Your task to perform on an android device: turn on translation in the chrome app Image 0: 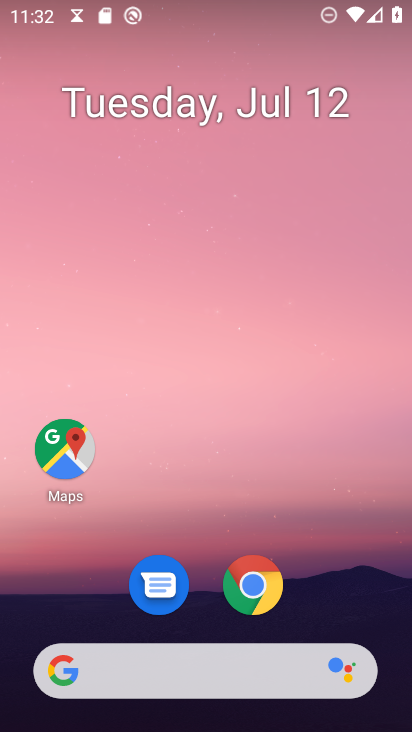
Step 0: click (256, 580)
Your task to perform on an android device: turn on translation in the chrome app Image 1: 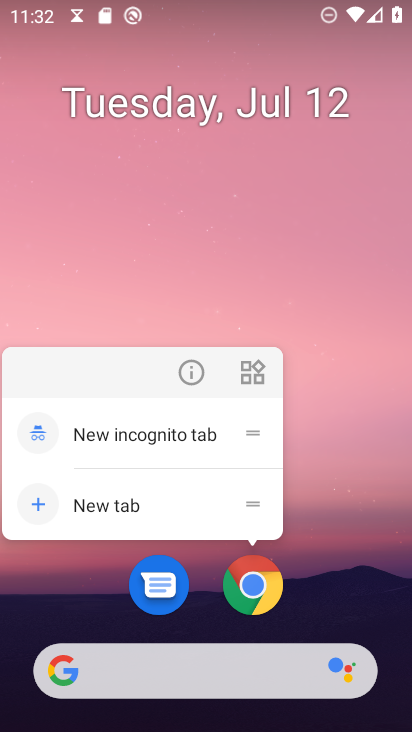
Step 1: click (256, 592)
Your task to perform on an android device: turn on translation in the chrome app Image 2: 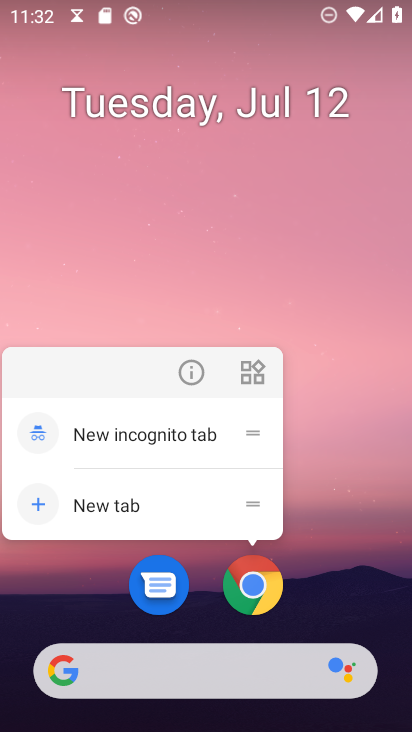
Step 2: click (256, 592)
Your task to perform on an android device: turn on translation in the chrome app Image 3: 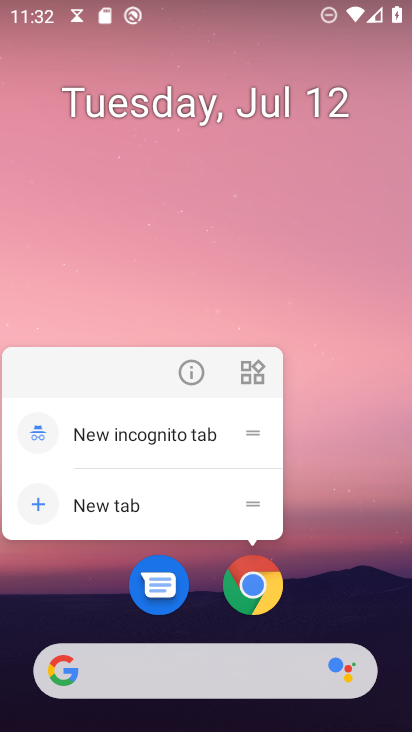
Step 3: click (259, 588)
Your task to perform on an android device: turn on translation in the chrome app Image 4: 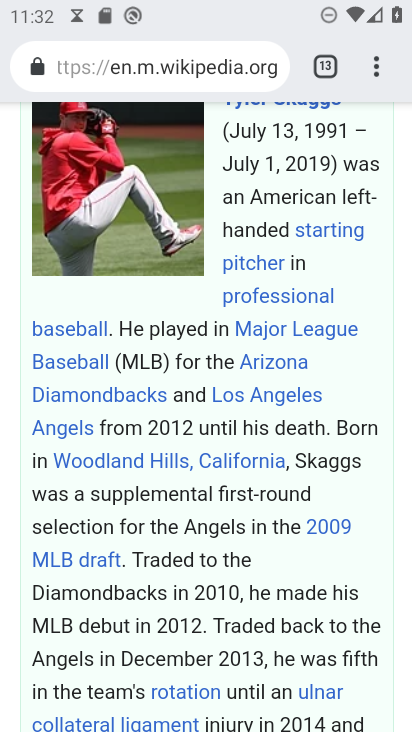
Step 4: drag from (377, 70) to (207, 588)
Your task to perform on an android device: turn on translation in the chrome app Image 5: 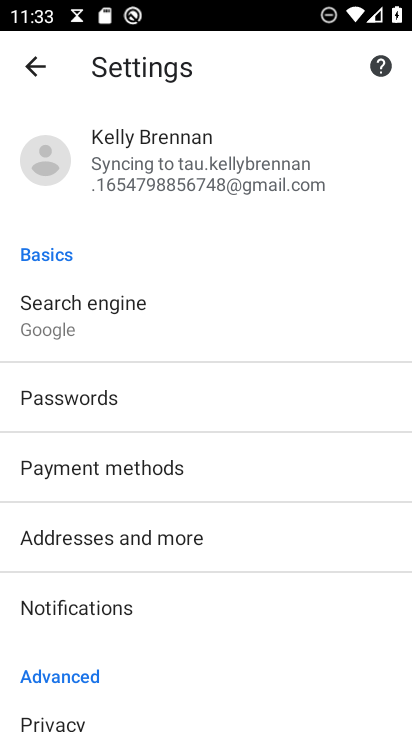
Step 5: drag from (219, 675) to (135, 254)
Your task to perform on an android device: turn on translation in the chrome app Image 6: 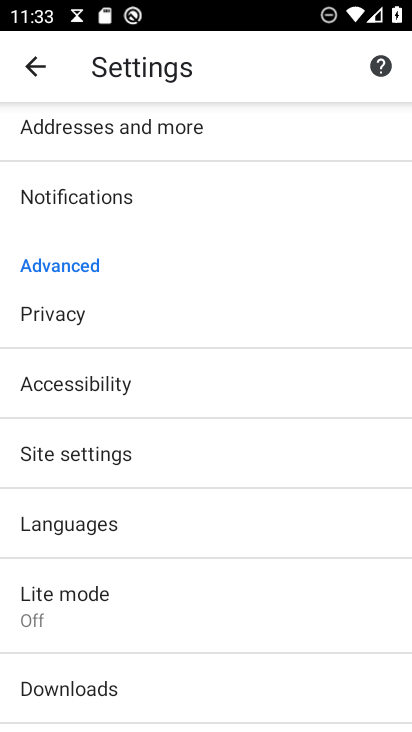
Step 6: click (97, 524)
Your task to perform on an android device: turn on translation in the chrome app Image 7: 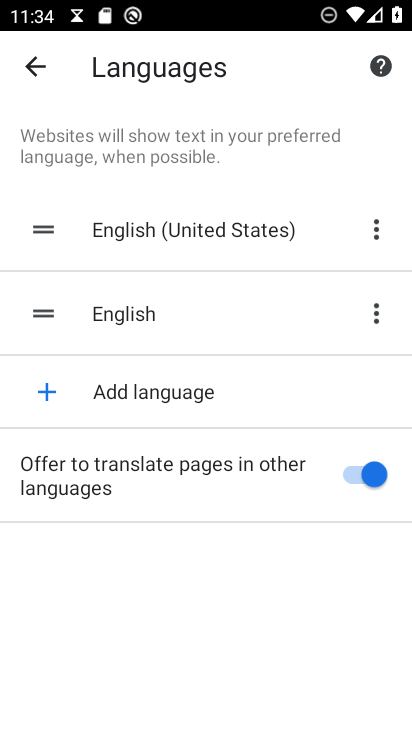
Step 7: task complete